Your task to perform on an android device: Go to Google Image 0: 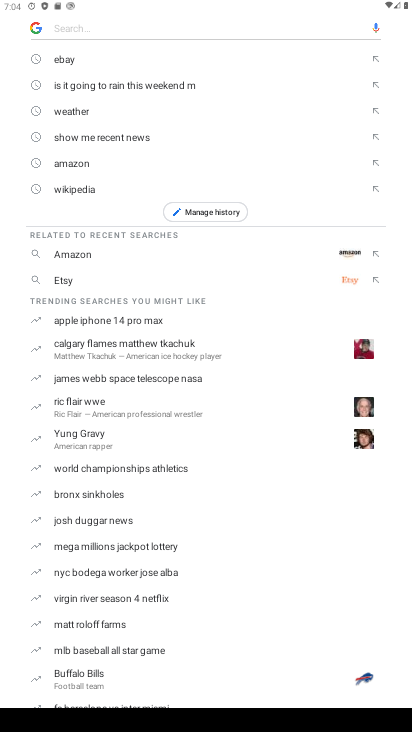
Step 0: press home button
Your task to perform on an android device: Go to Google Image 1: 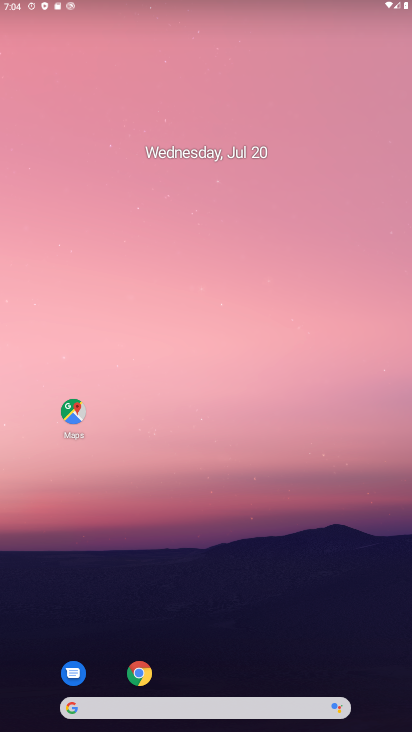
Step 1: drag from (376, 642) to (171, 31)
Your task to perform on an android device: Go to Google Image 2: 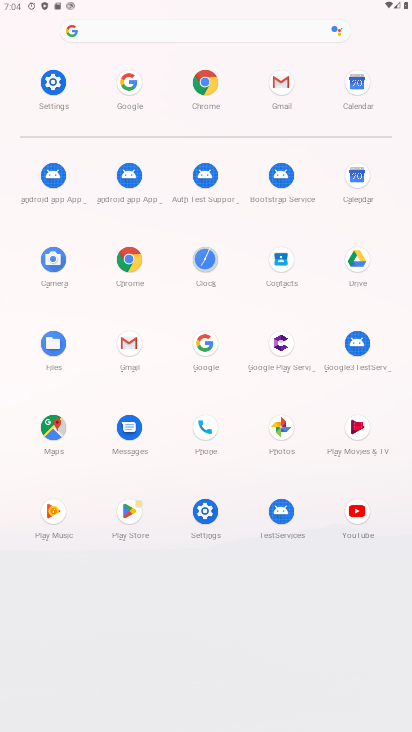
Step 2: click (202, 347)
Your task to perform on an android device: Go to Google Image 3: 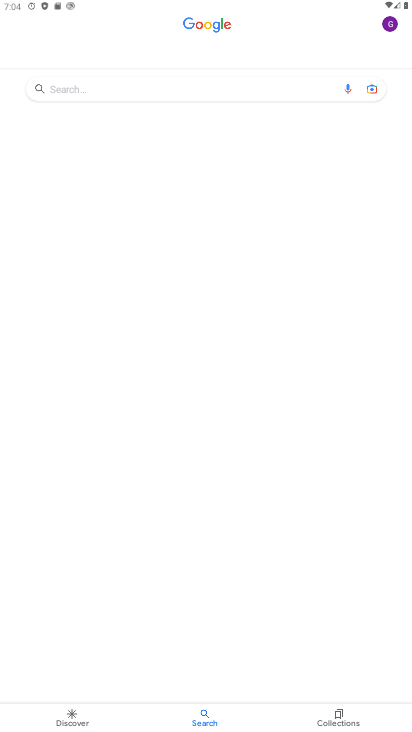
Step 3: task complete